Your task to perform on an android device: Open Maps and search for coffee Image 0: 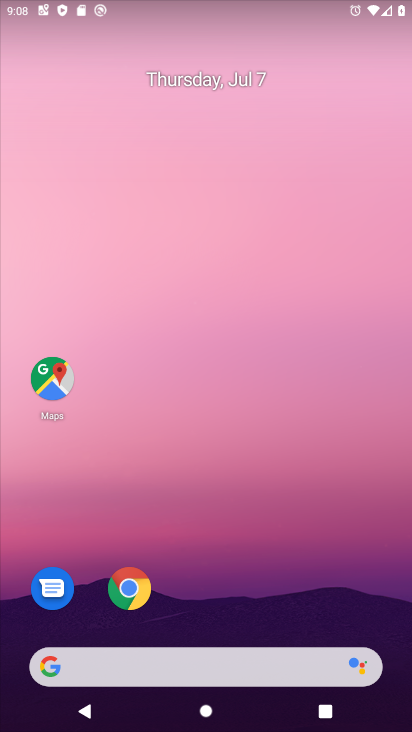
Step 0: press home button
Your task to perform on an android device: Open Maps and search for coffee Image 1: 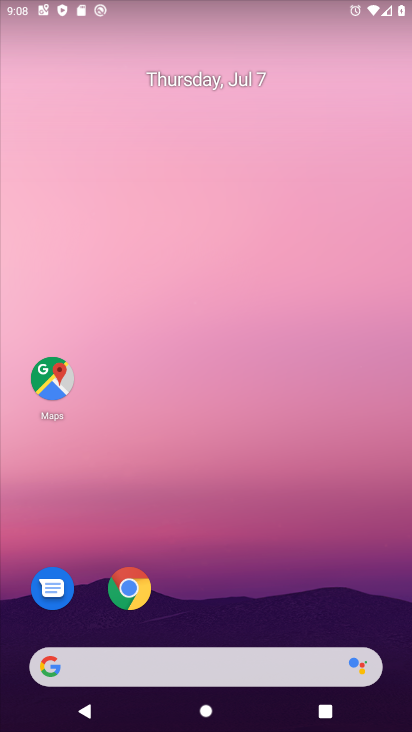
Step 1: drag from (215, 566) to (233, 3)
Your task to perform on an android device: Open Maps and search for coffee Image 2: 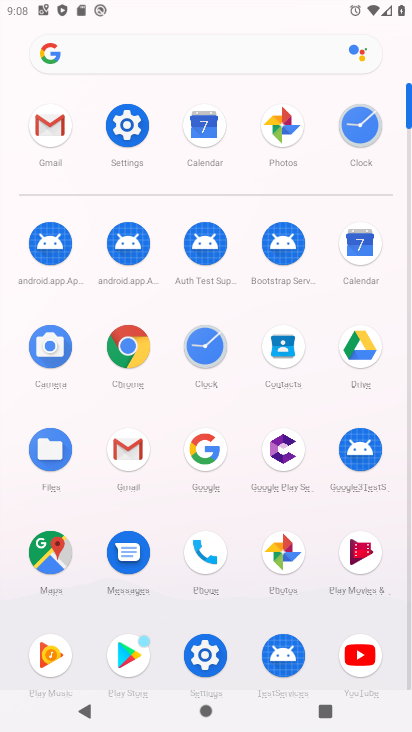
Step 2: click (66, 543)
Your task to perform on an android device: Open Maps and search for coffee Image 3: 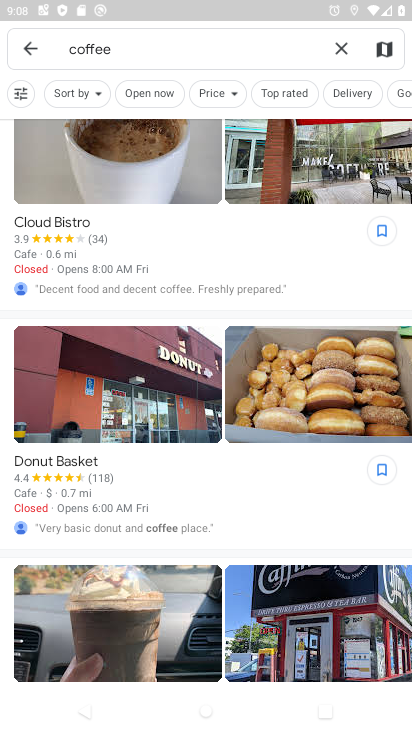
Step 3: drag from (213, 573) to (244, 100)
Your task to perform on an android device: Open Maps and search for coffee Image 4: 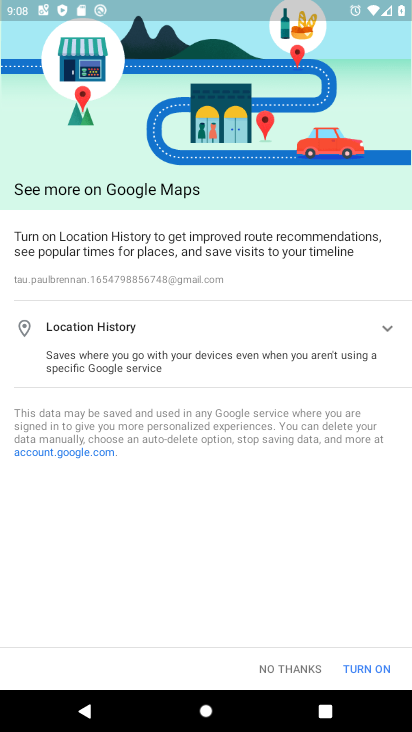
Step 4: click (371, 666)
Your task to perform on an android device: Open Maps and search for coffee Image 5: 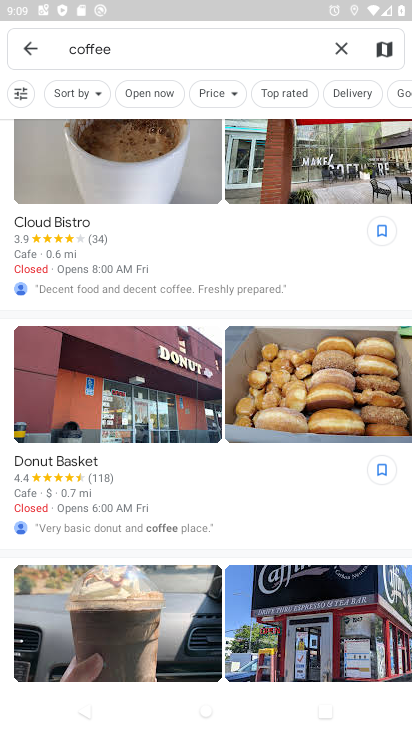
Step 5: task complete